Your task to perform on an android device: Go to wifi settings Image 0: 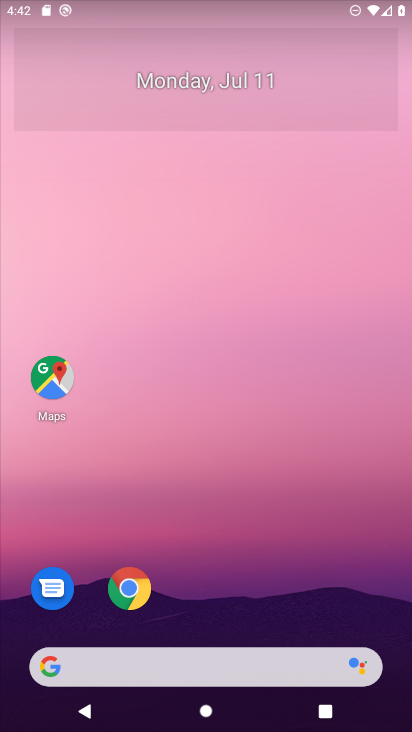
Step 0: press home button
Your task to perform on an android device: Go to wifi settings Image 1: 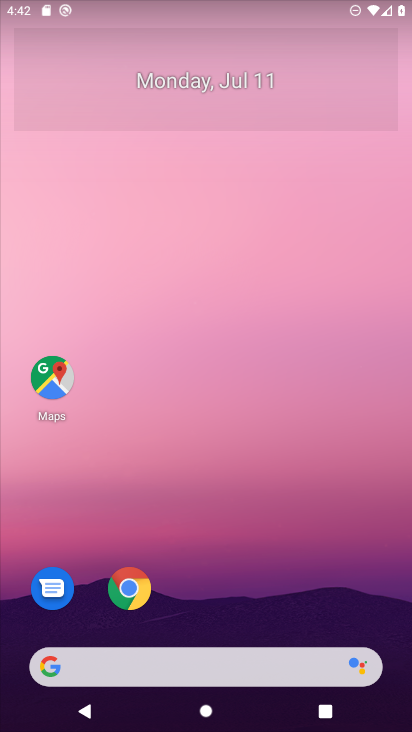
Step 1: drag from (243, 623) to (317, 0)
Your task to perform on an android device: Go to wifi settings Image 2: 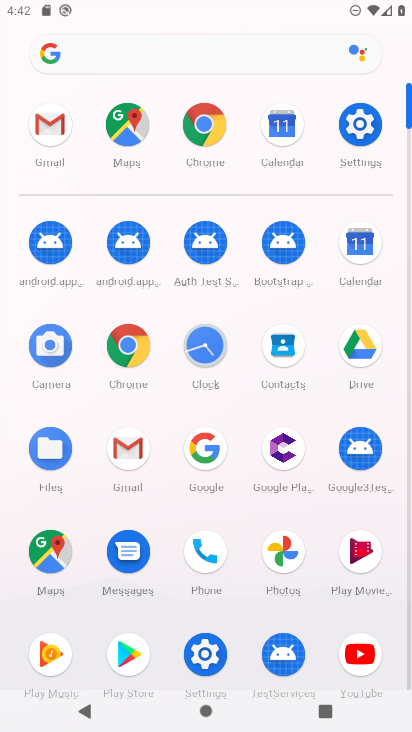
Step 2: click (360, 128)
Your task to perform on an android device: Go to wifi settings Image 3: 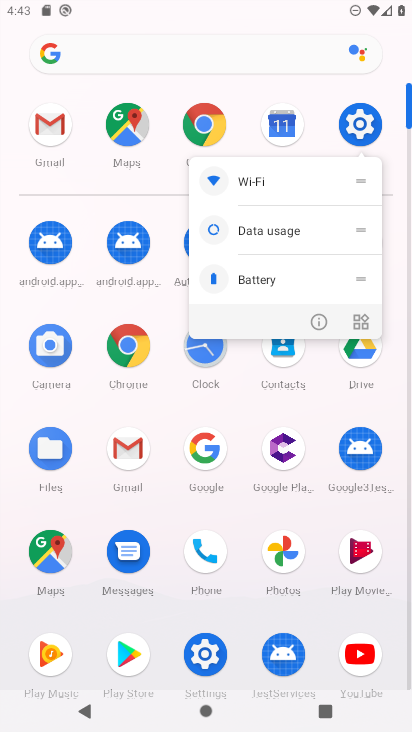
Step 3: click (365, 127)
Your task to perform on an android device: Go to wifi settings Image 4: 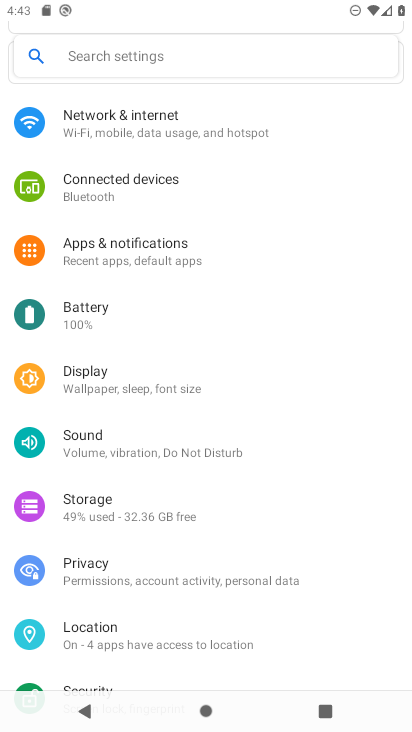
Step 4: click (126, 129)
Your task to perform on an android device: Go to wifi settings Image 5: 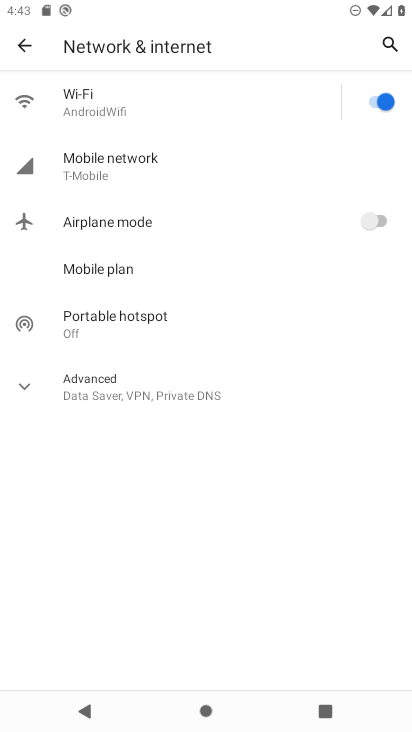
Step 5: click (82, 93)
Your task to perform on an android device: Go to wifi settings Image 6: 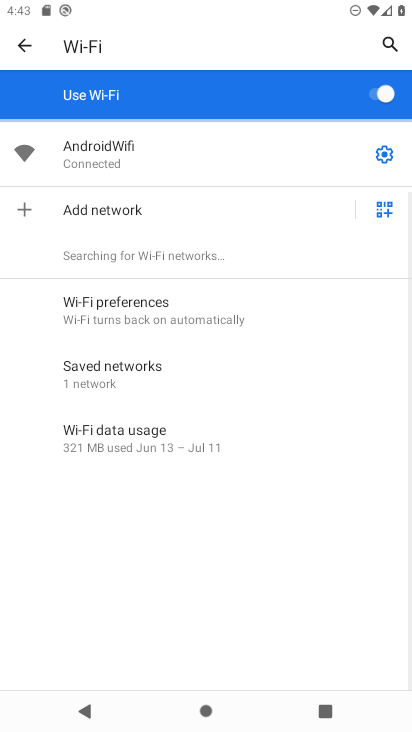
Step 6: task complete